Your task to perform on an android device: Open settings on Google Maps Image 0: 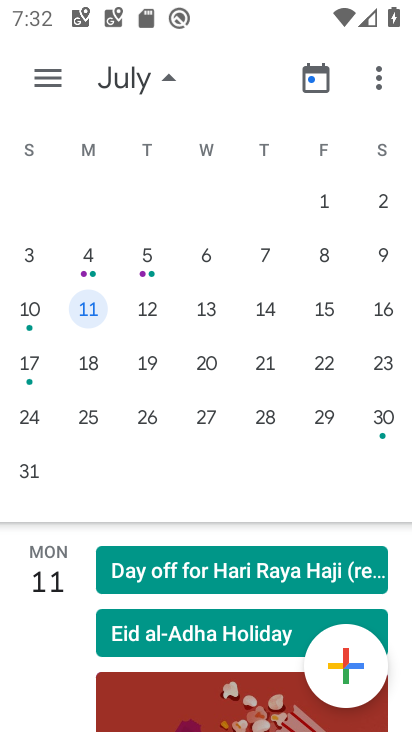
Step 0: press home button
Your task to perform on an android device: Open settings on Google Maps Image 1: 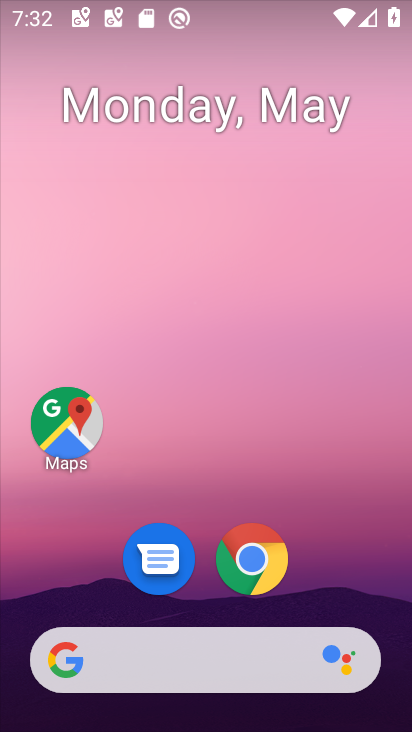
Step 1: click (66, 413)
Your task to perform on an android device: Open settings on Google Maps Image 2: 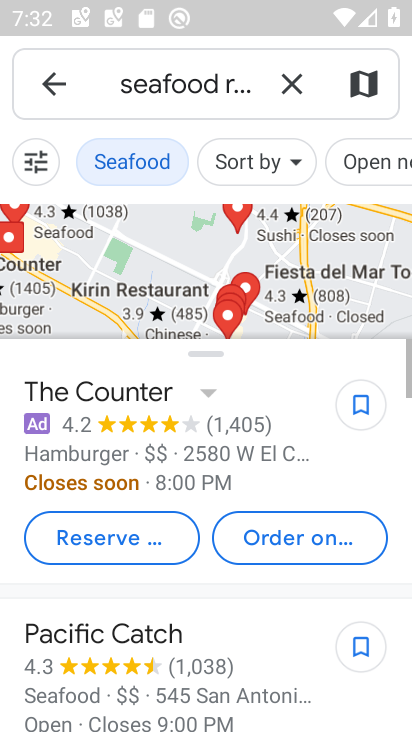
Step 2: click (298, 92)
Your task to perform on an android device: Open settings on Google Maps Image 3: 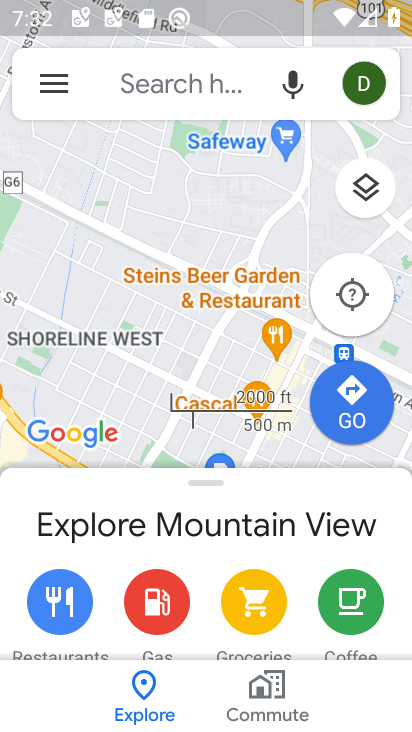
Step 3: click (55, 75)
Your task to perform on an android device: Open settings on Google Maps Image 4: 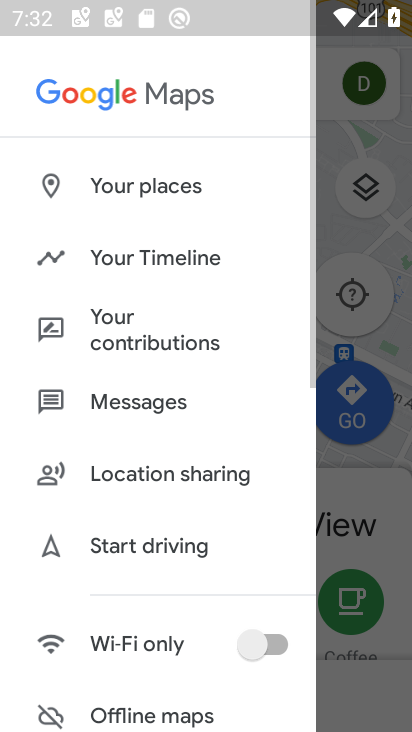
Step 4: drag from (69, 665) to (181, 148)
Your task to perform on an android device: Open settings on Google Maps Image 5: 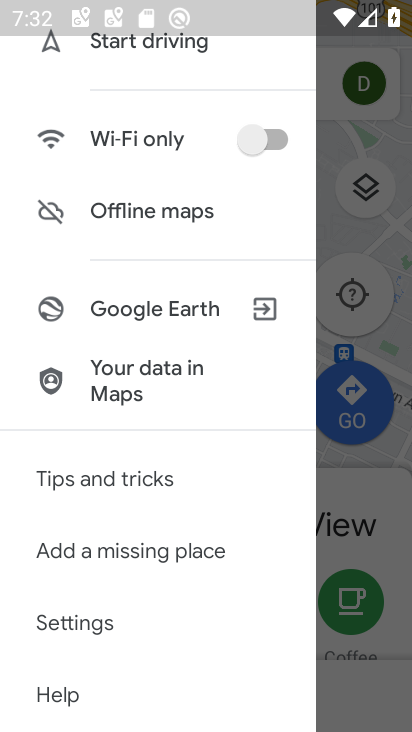
Step 5: click (44, 645)
Your task to perform on an android device: Open settings on Google Maps Image 6: 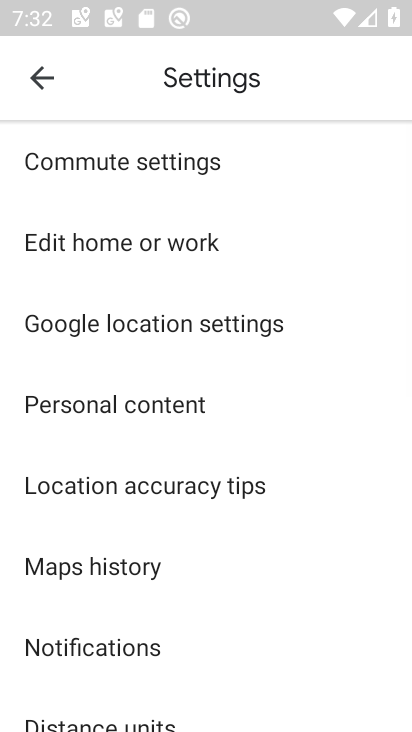
Step 6: task complete